Your task to perform on an android device: open app "McDonald's" (install if not already installed) Image 0: 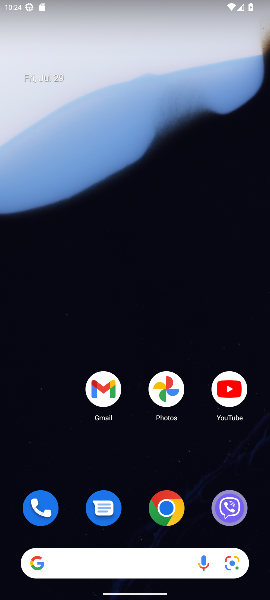
Step 0: drag from (174, 549) to (211, 12)
Your task to perform on an android device: open app "McDonald's" (install if not already installed) Image 1: 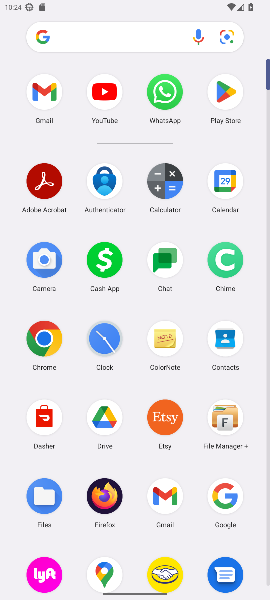
Step 1: click (225, 85)
Your task to perform on an android device: open app "McDonald's" (install if not already installed) Image 2: 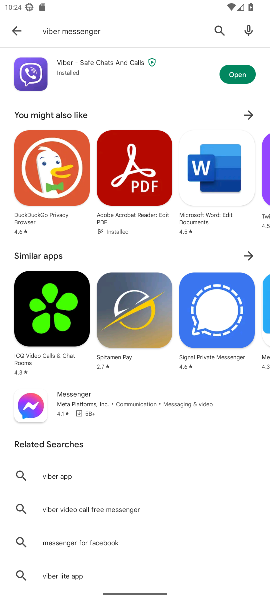
Step 2: click (222, 25)
Your task to perform on an android device: open app "McDonald's" (install if not already installed) Image 3: 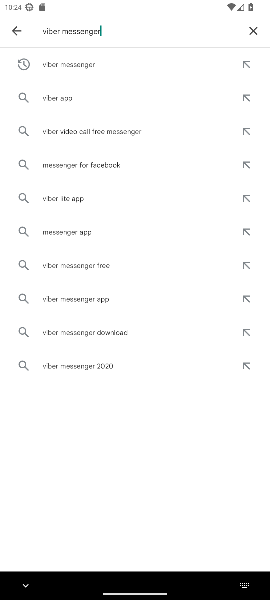
Step 3: click (256, 28)
Your task to perform on an android device: open app "McDonald's" (install if not already installed) Image 4: 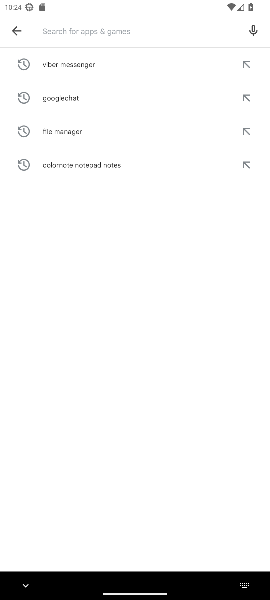
Step 4: type "mcdonalds"
Your task to perform on an android device: open app "McDonald's" (install if not already installed) Image 5: 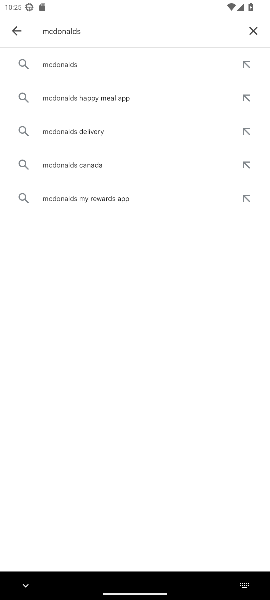
Step 5: click (76, 63)
Your task to perform on an android device: open app "McDonald's" (install if not already installed) Image 6: 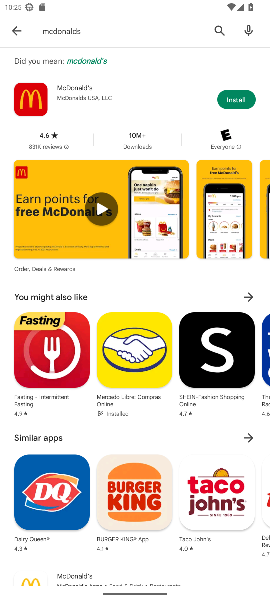
Step 6: click (240, 98)
Your task to perform on an android device: open app "McDonald's" (install if not already installed) Image 7: 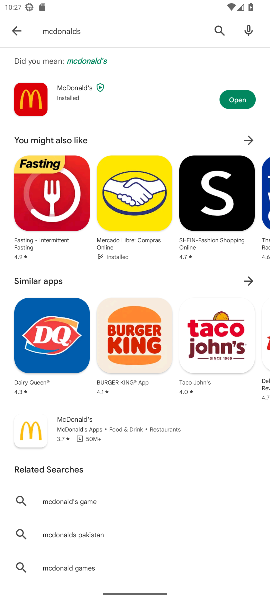
Step 7: click (236, 106)
Your task to perform on an android device: open app "McDonald's" (install if not already installed) Image 8: 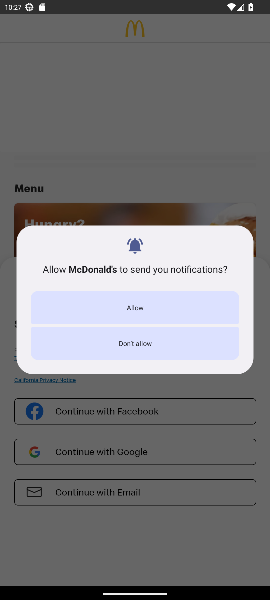
Step 8: task complete